Your task to perform on an android device: turn on translation in the chrome app Image 0: 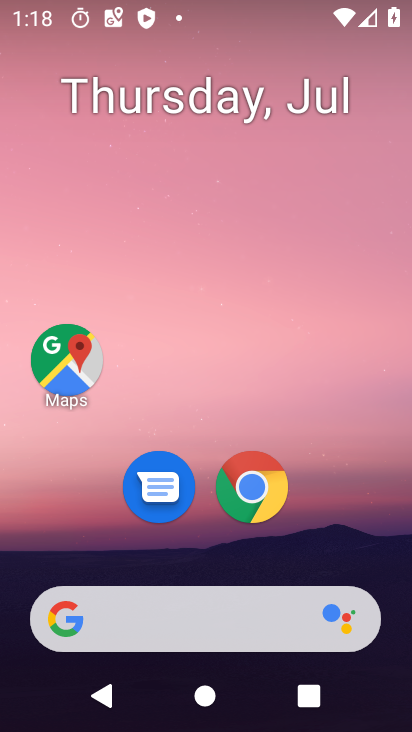
Step 0: drag from (193, 677) to (224, 48)
Your task to perform on an android device: turn on translation in the chrome app Image 1: 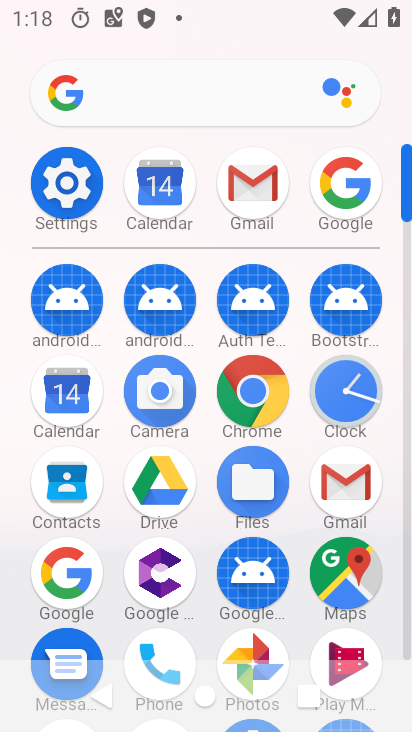
Step 1: click (269, 409)
Your task to perform on an android device: turn on translation in the chrome app Image 2: 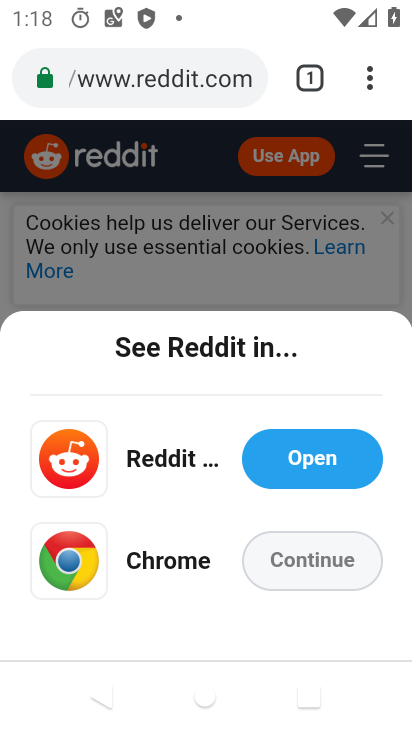
Step 2: click (360, 90)
Your task to perform on an android device: turn on translation in the chrome app Image 3: 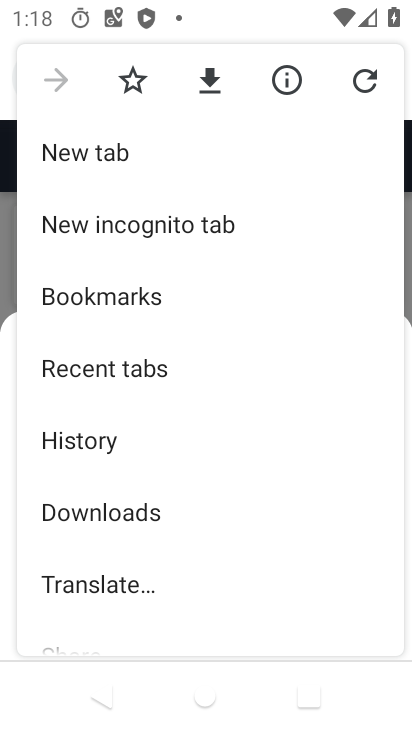
Step 3: click (78, 597)
Your task to perform on an android device: turn on translation in the chrome app Image 4: 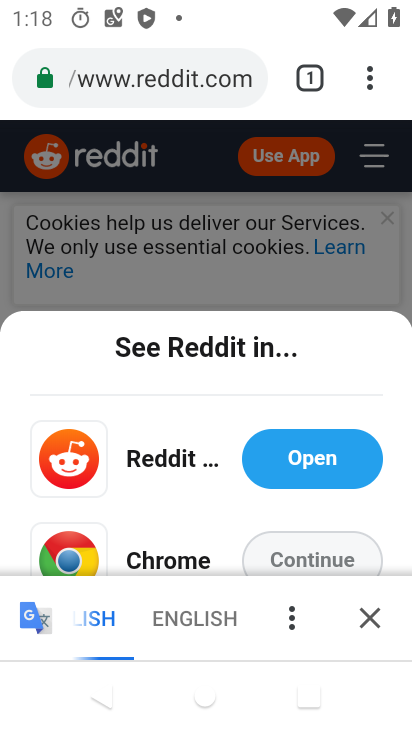
Step 4: click (290, 618)
Your task to perform on an android device: turn on translation in the chrome app Image 5: 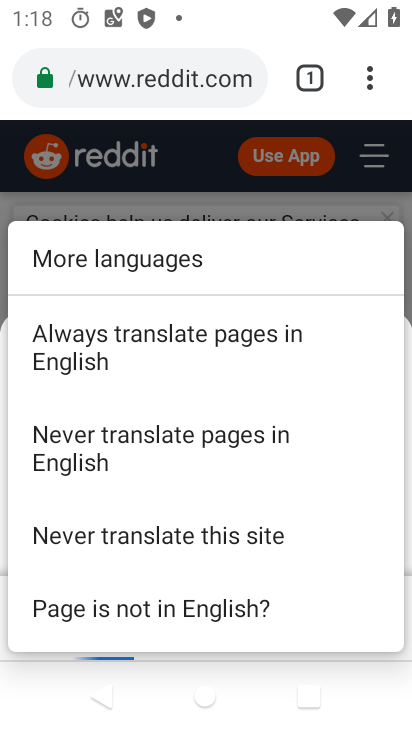
Step 5: click (183, 373)
Your task to perform on an android device: turn on translation in the chrome app Image 6: 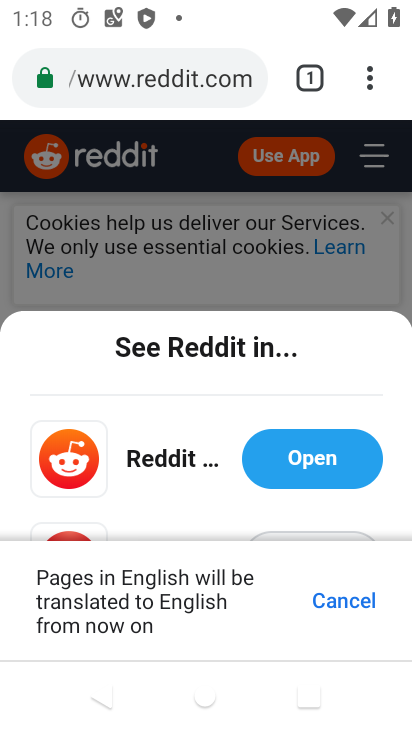
Step 6: task complete